Your task to perform on an android device: Open Wikipedia Image 0: 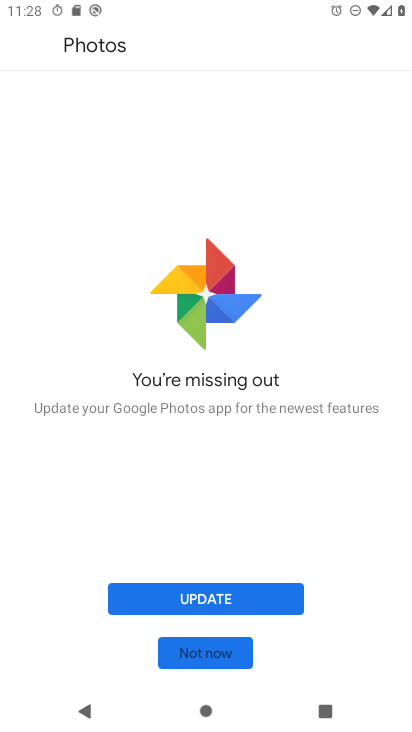
Step 0: press back button
Your task to perform on an android device: Open Wikipedia Image 1: 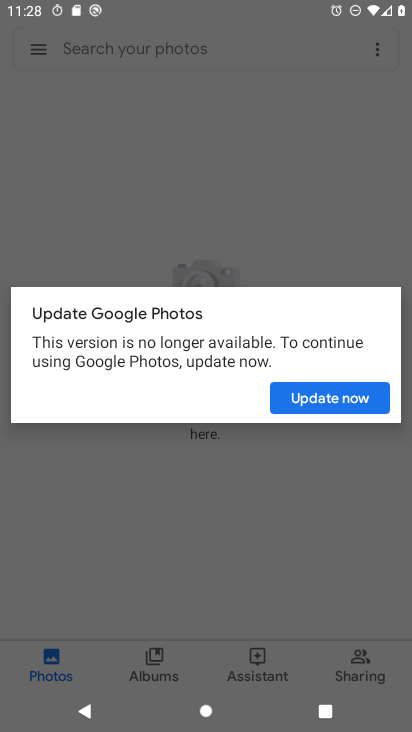
Step 1: press home button
Your task to perform on an android device: Open Wikipedia Image 2: 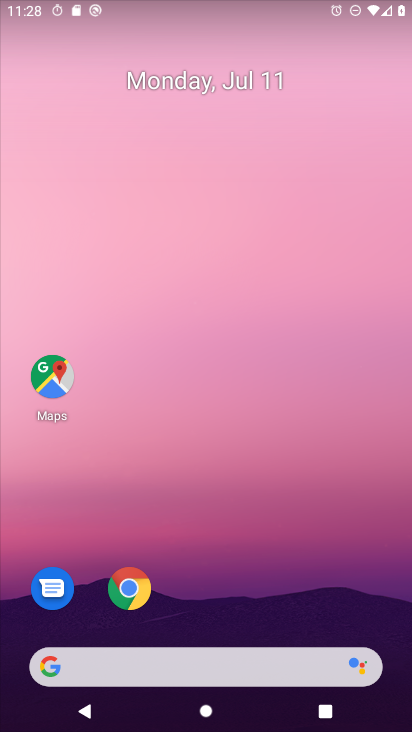
Step 2: click (132, 586)
Your task to perform on an android device: Open Wikipedia Image 3: 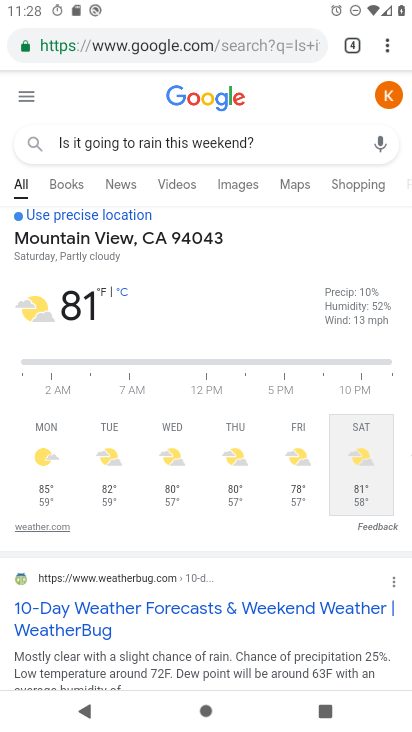
Step 3: click (356, 42)
Your task to perform on an android device: Open Wikipedia Image 4: 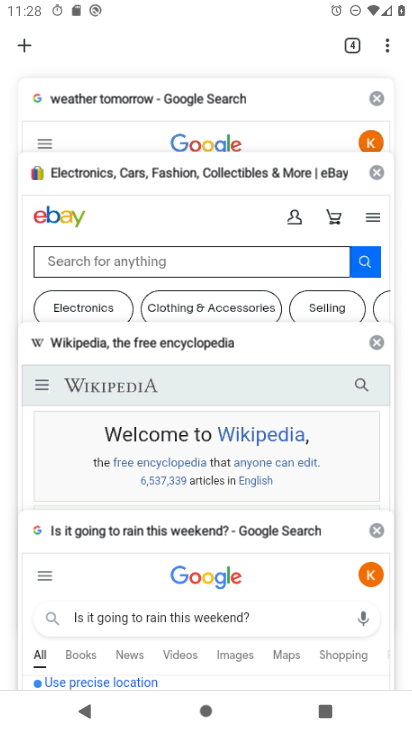
Step 4: click (127, 353)
Your task to perform on an android device: Open Wikipedia Image 5: 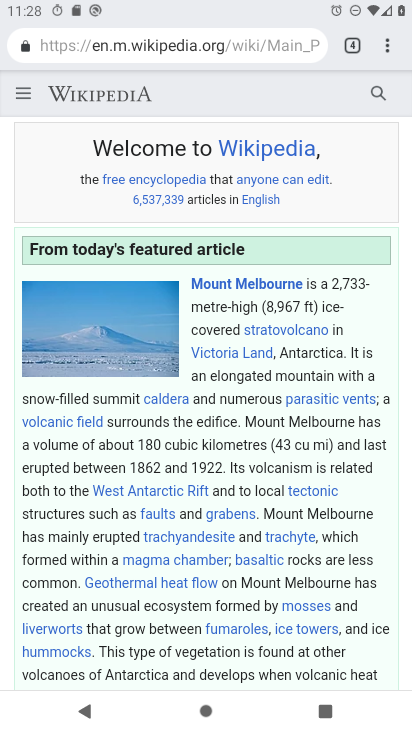
Step 5: task complete